Your task to perform on an android device: Go to notification settings Image 0: 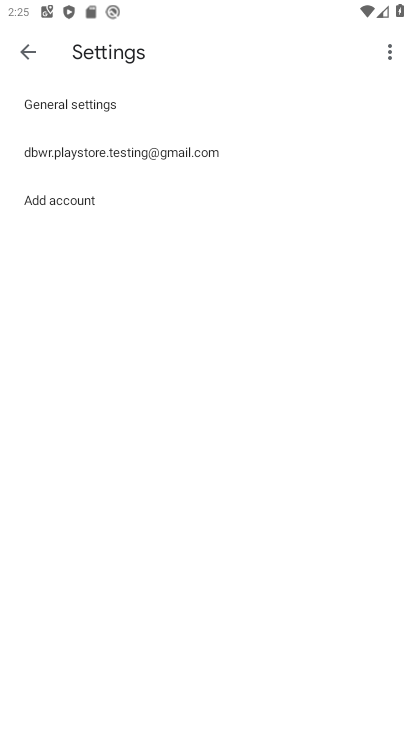
Step 0: press home button
Your task to perform on an android device: Go to notification settings Image 1: 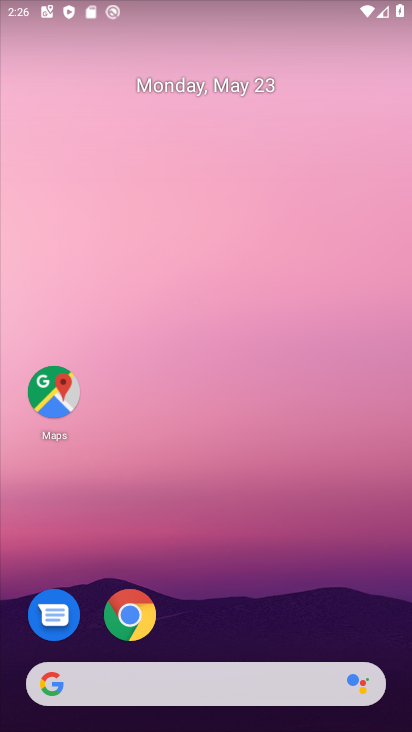
Step 1: drag from (276, 656) to (296, 12)
Your task to perform on an android device: Go to notification settings Image 2: 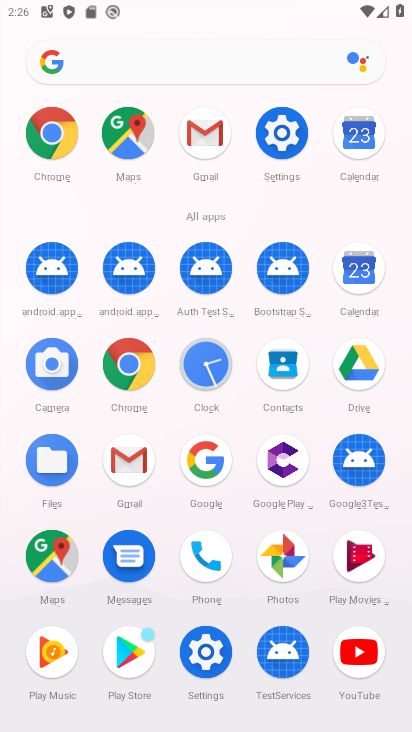
Step 2: click (285, 130)
Your task to perform on an android device: Go to notification settings Image 3: 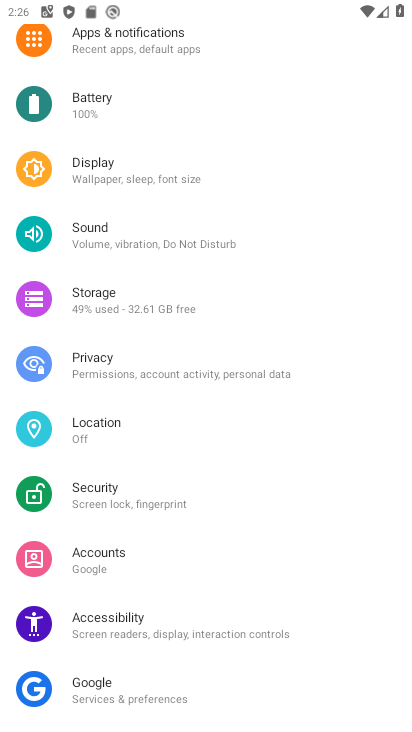
Step 3: click (129, 46)
Your task to perform on an android device: Go to notification settings Image 4: 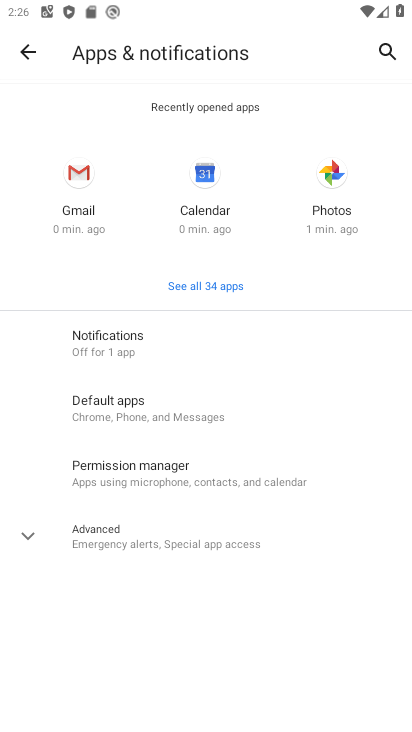
Step 4: task complete